Your task to perform on an android device: turn vacation reply on in the gmail app Image 0: 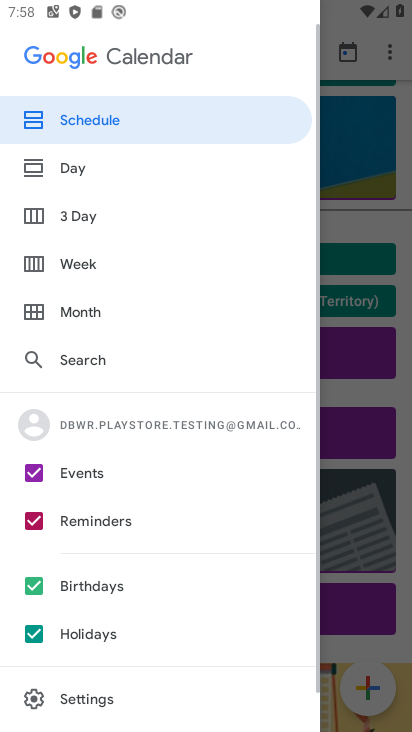
Step 0: press home button
Your task to perform on an android device: turn vacation reply on in the gmail app Image 1: 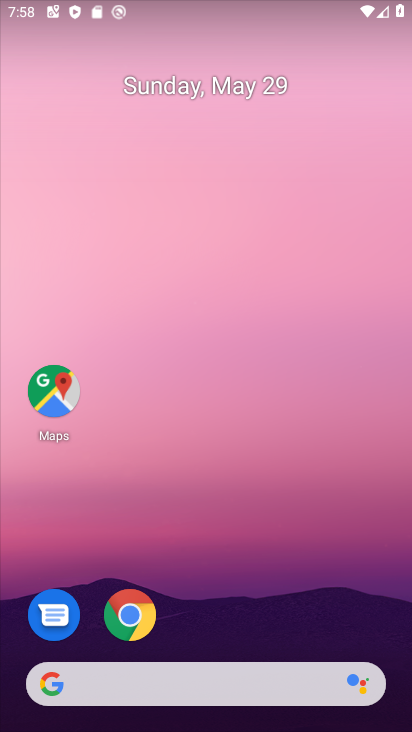
Step 1: drag from (309, 632) to (253, 126)
Your task to perform on an android device: turn vacation reply on in the gmail app Image 2: 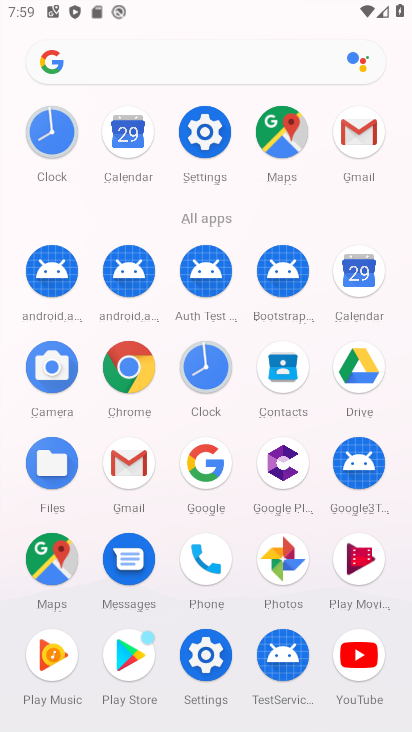
Step 2: click (356, 134)
Your task to perform on an android device: turn vacation reply on in the gmail app Image 3: 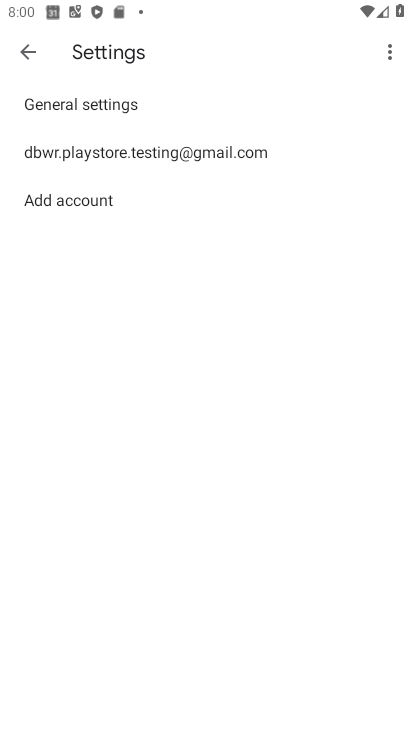
Step 3: click (135, 156)
Your task to perform on an android device: turn vacation reply on in the gmail app Image 4: 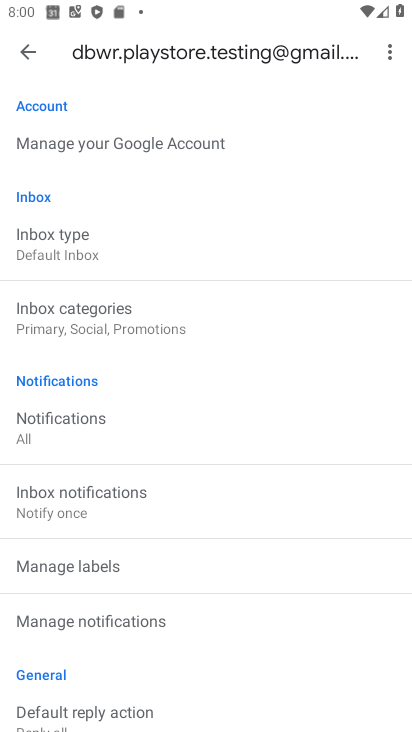
Step 4: drag from (307, 679) to (240, 235)
Your task to perform on an android device: turn vacation reply on in the gmail app Image 5: 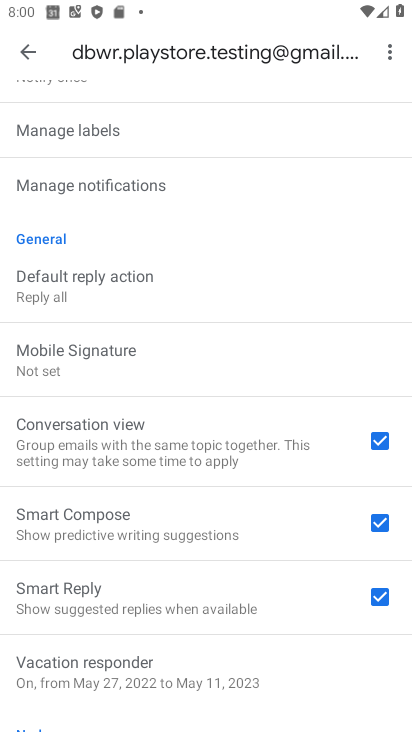
Step 5: drag from (291, 667) to (286, 81)
Your task to perform on an android device: turn vacation reply on in the gmail app Image 6: 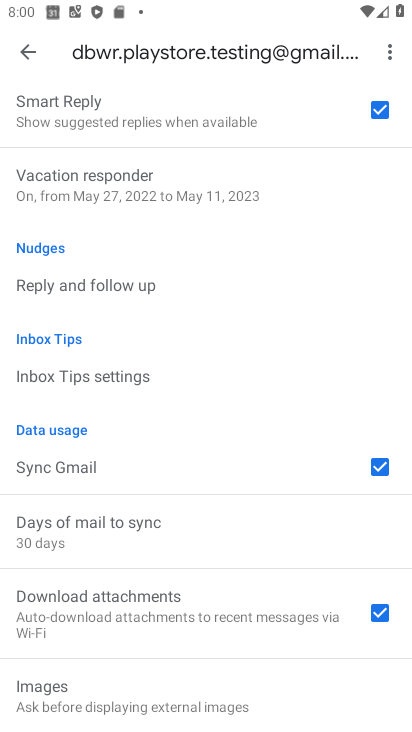
Step 6: drag from (259, 646) to (222, 233)
Your task to perform on an android device: turn vacation reply on in the gmail app Image 7: 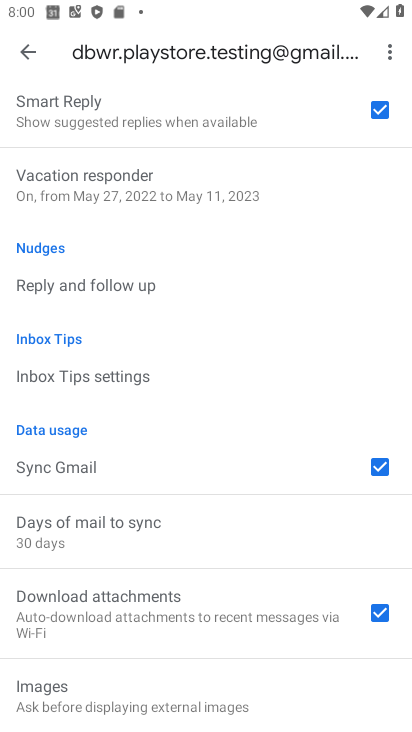
Step 7: drag from (215, 669) to (230, 224)
Your task to perform on an android device: turn vacation reply on in the gmail app Image 8: 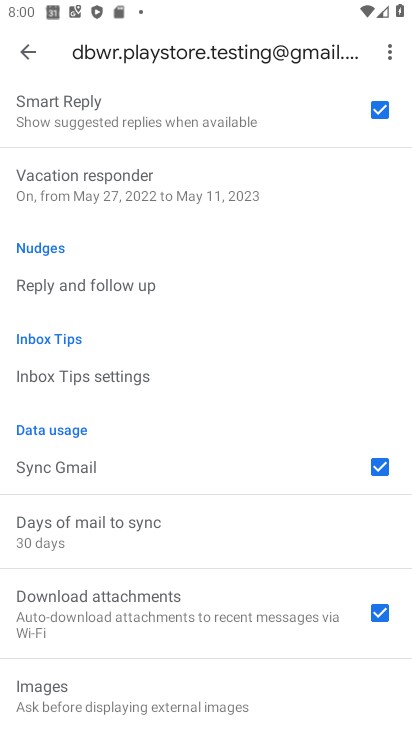
Step 8: drag from (265, 255) to (262, 413)
Your task to perform on an android device: turn vacation reply on in the gmail app Image 9: 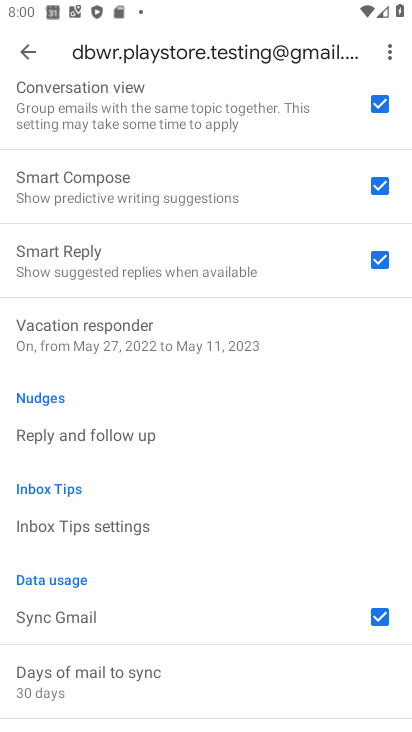
Step 9: click (172, 335)
Your task to perform on an android device: turn vacation reply on in the gmail app Image 10: 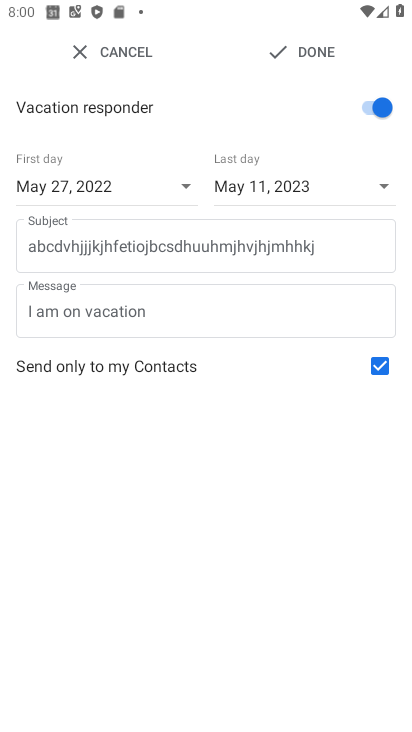
Step 10: click (106, 334)
Your task to perform on an android device: turn vacation reply on in the gmail app Image 11: 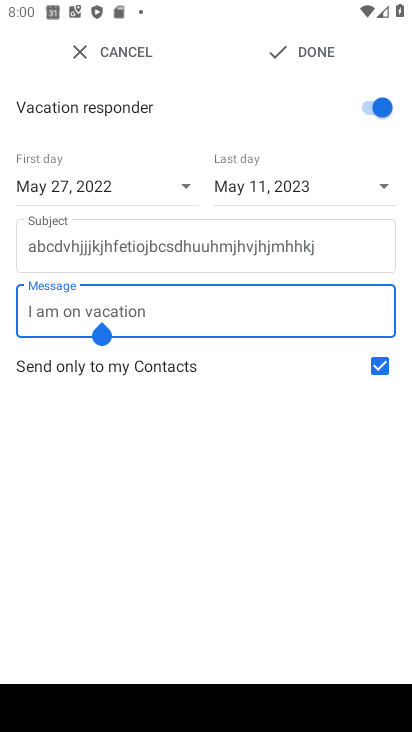
Step 11: task complete